Your task to perform on an android device: What's the weather today? Image 0: 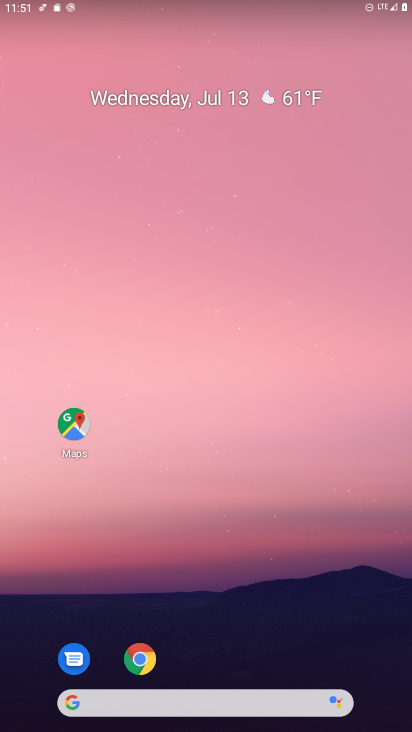
Step 0: click (290, 102)
Your task to perform on an android device: What's the weather today? Image 1: 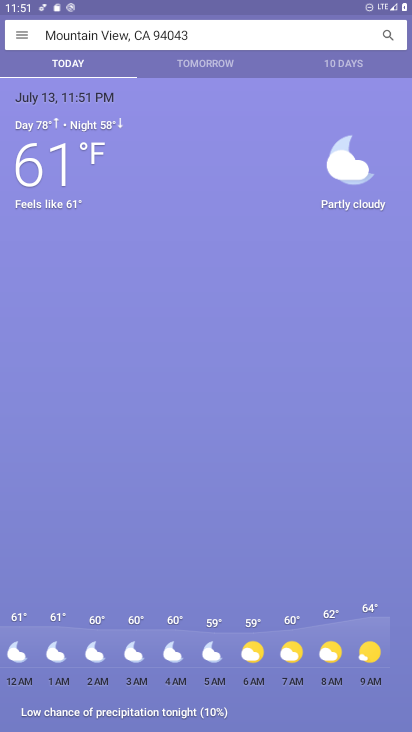
Step 1: task complete